Your task to perform on an android device: Is it going to rain this weekend? Image 0: 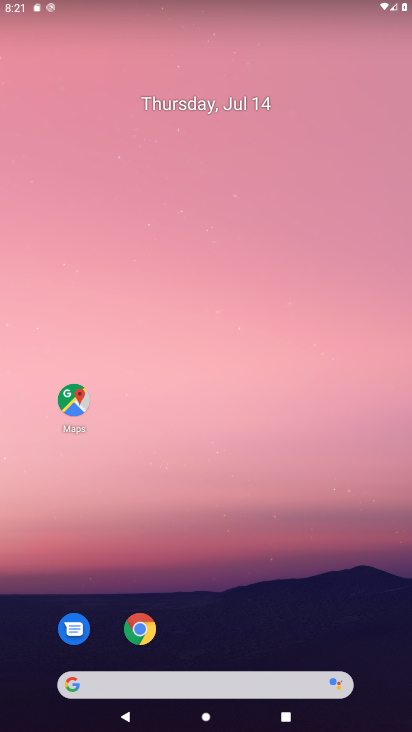
Step 0: click (201, 688)
Your task to perform on an android device: Is it going to rain this weekend? Image 1: 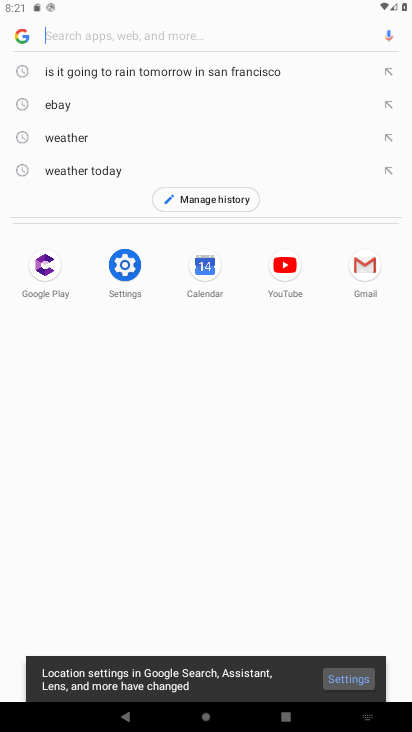
Step 1: click (74, 136)
Your task to perform on an android device: Is it going to rain this weekend? Image 2: 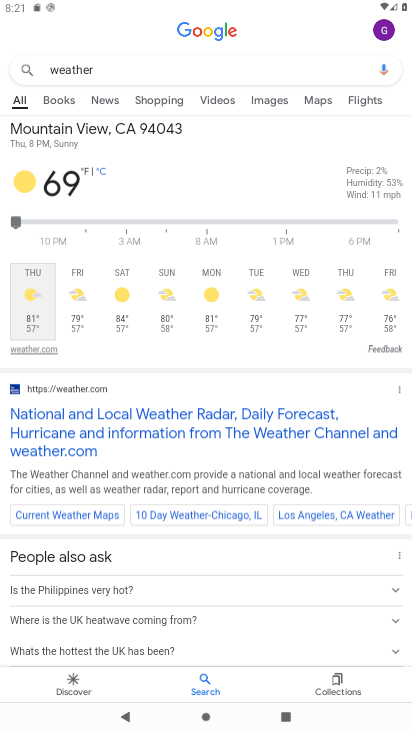
Step 2: task complete